Your task to perform on an android device: Open ESPN.com Image 0: 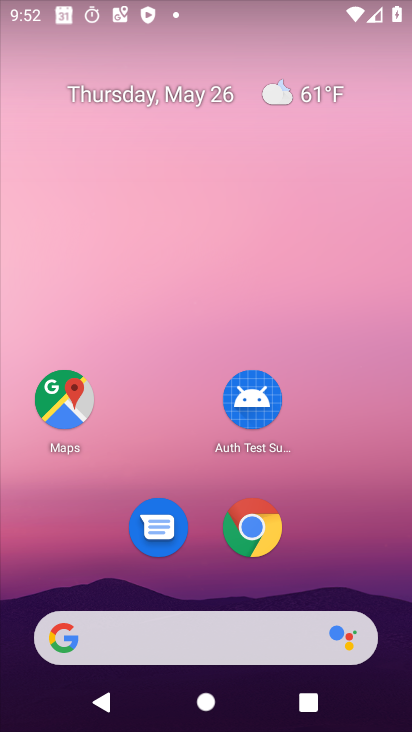
Step 0: drag from (372, 549) to (300, 94)
Your task to perform on an android device: Open ESPN.com Image 1: 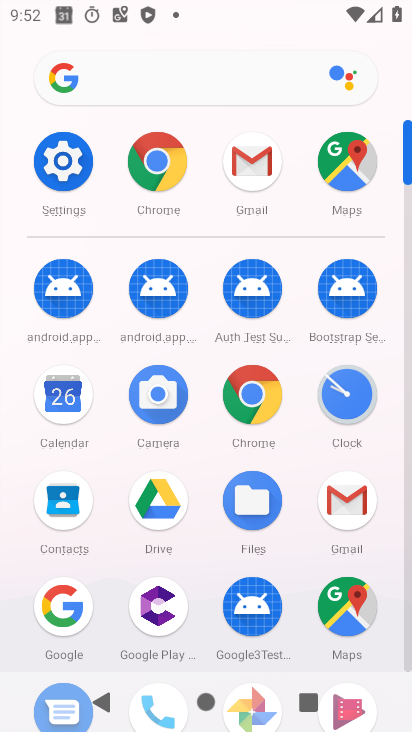
Step 1: click (139, 138)
Your task to perform on an android device: Open ESPN.com Image 2: 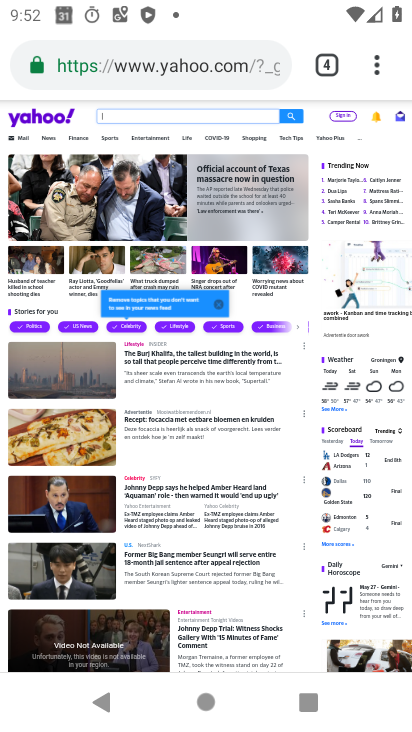
Step 2: click (133, 59)
Your task to perform on an android device: Open ESPN.com Image 3: 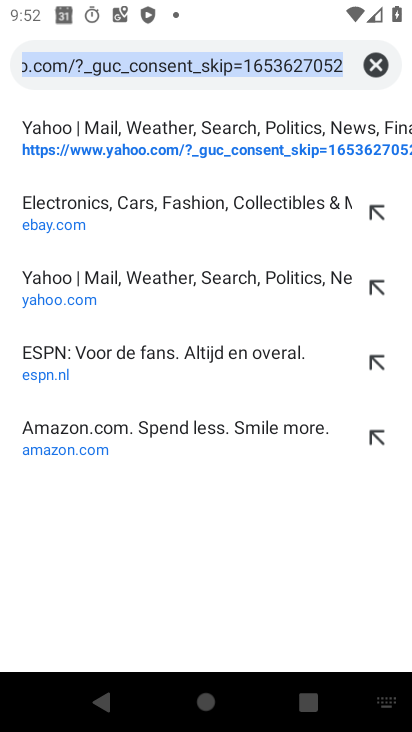
Step 3: click (368, 68)
Your task to perform on an android device: Open ESPN.com Image 4: 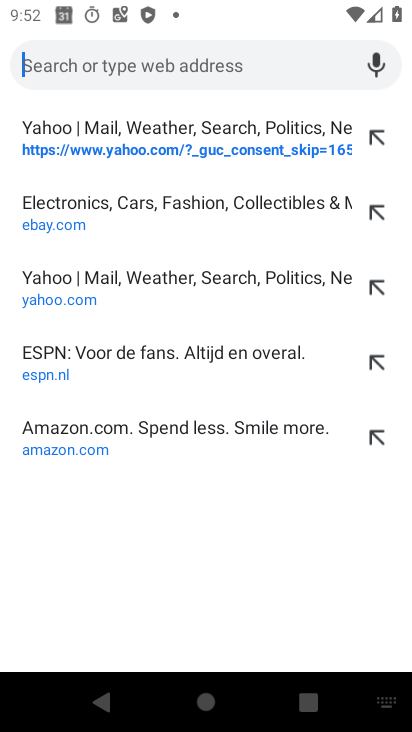
Step 4: click (177, 369)
Your task to perform on an android device: Open ESPN.com Image 5: 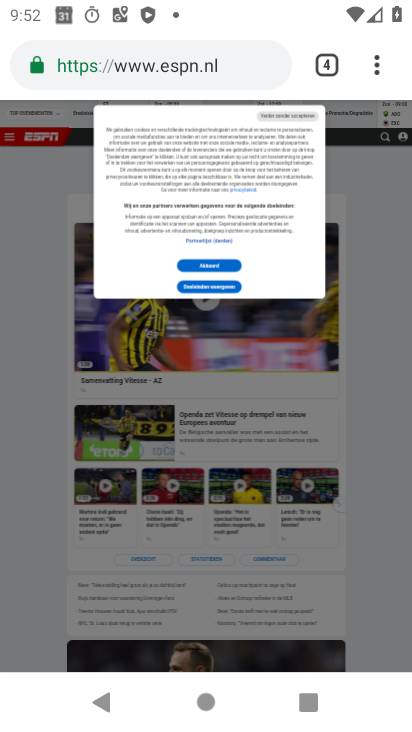
Step 5: task complete